Your task to perform on an android device: Set the phone to "Do not disturb". Image 0: 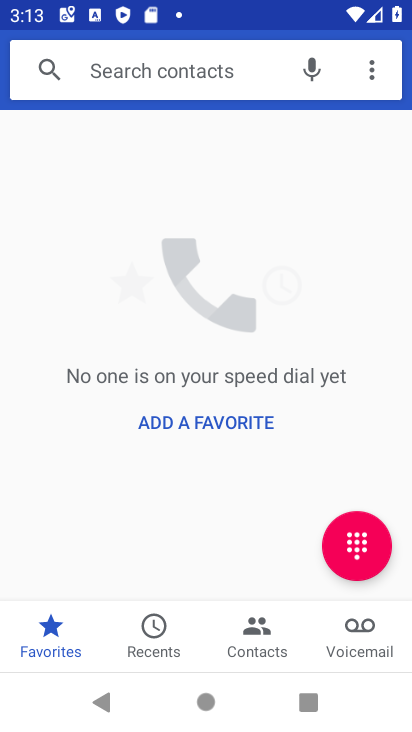
Step 0: press home button
Your task to perform on an android device: Set the phone to "Do not disturb". Image 1: 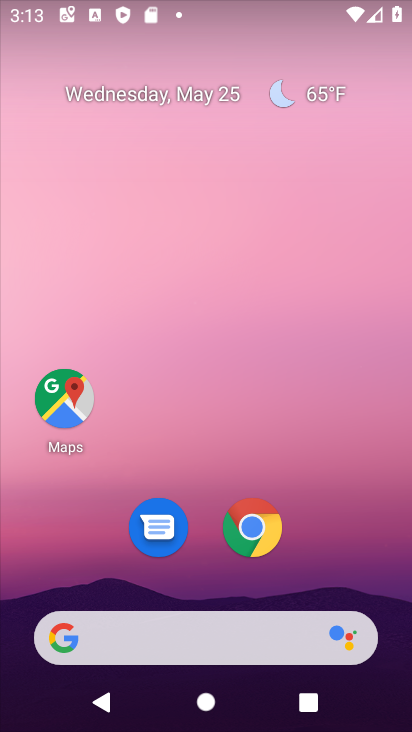
Step 1: drag from (283, 636) to (282, 55)
Your task to perform on an android device: Set the phone to "Do not disturb". Image 2: 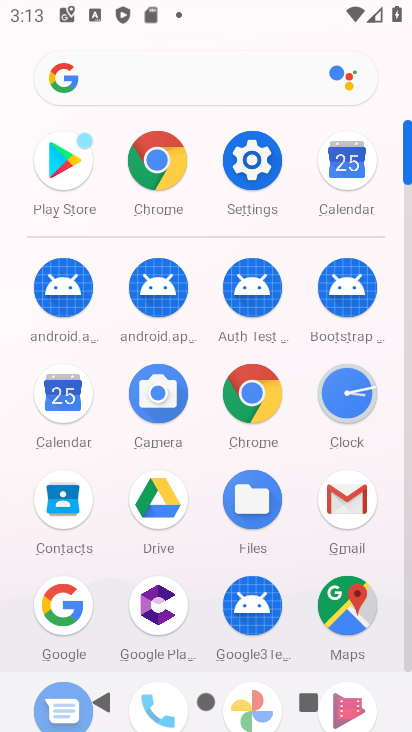
Step 2: click (241, 159)
Your task to perform on an android device: Set the phone to "Do not disturb". Image 3: 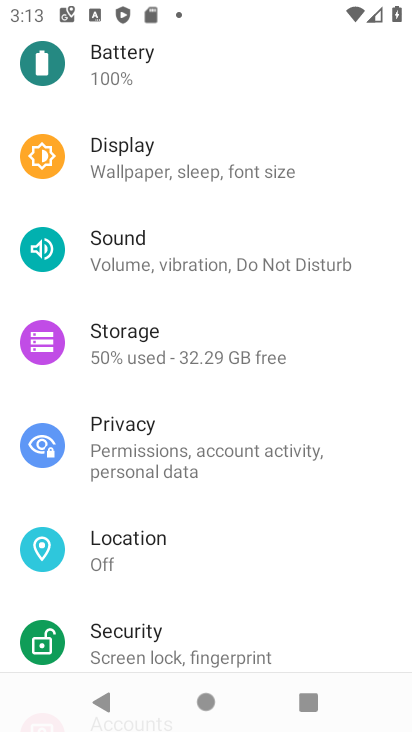
Step 3: click (176, 261)
Your task to perform on an android device: Set the phone to "Do not disturb". Image 4: 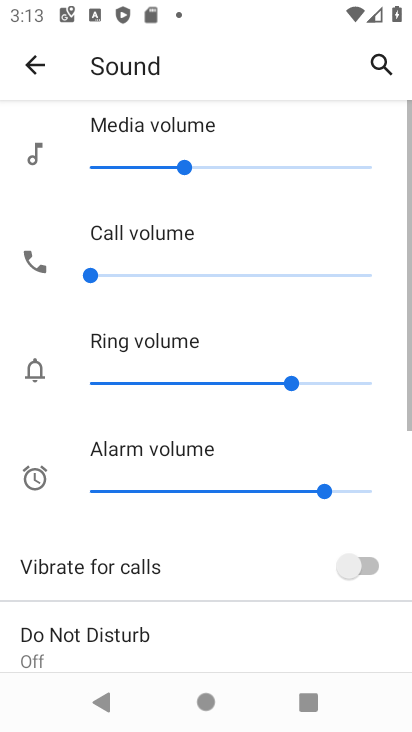
Step 4: drag from (215, 552) to (245, 6)
Your task to perform on an android device: Set the phone to "Do not disturb". Image 5: 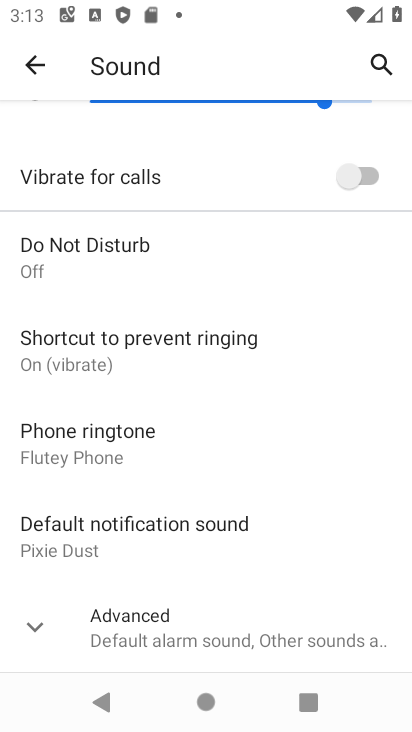
Step 5: click (140, 242)
Your task to perform on an android device: Set the phone to "Do not disturb". Image 6: 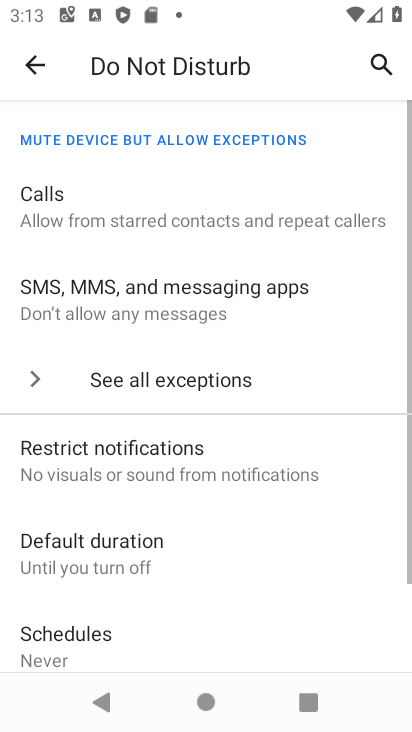
Step 6: drag from (172, 588) to (198, 82)
Your task to perform on an android device: Set the phone to "Do not disturb". Image 7: 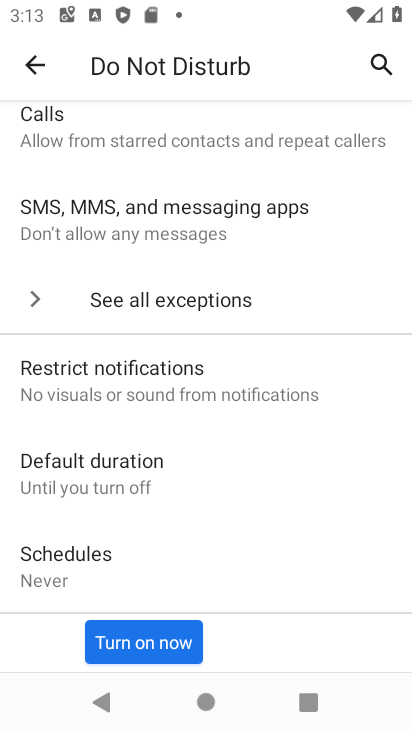
Step 7: click (149, 639)
Your task to perform on an android device: Set the phone to "Do not disturb". Image 8: 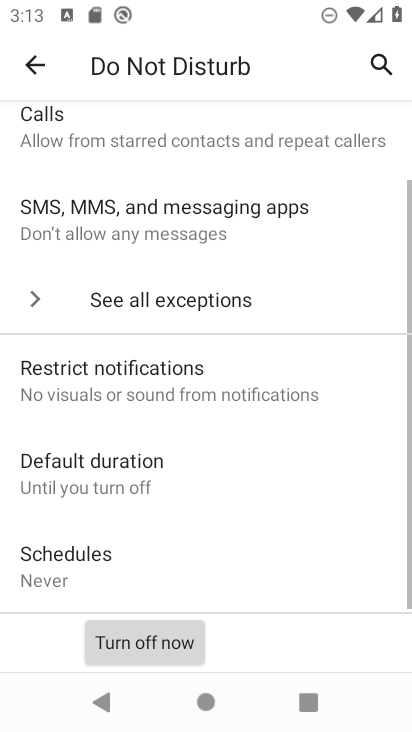
Step 8: task complete